Your task to perform on an android device: turn on showing notifications on the lock screen Image 0: 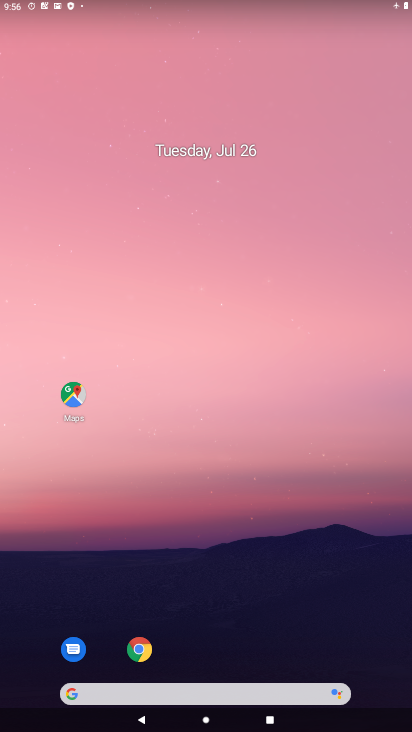
Step 0: drag from (219, 618) to (290, 167)
Your task to perform on an android device: turn on showing notifications on the lock screen Image 1: 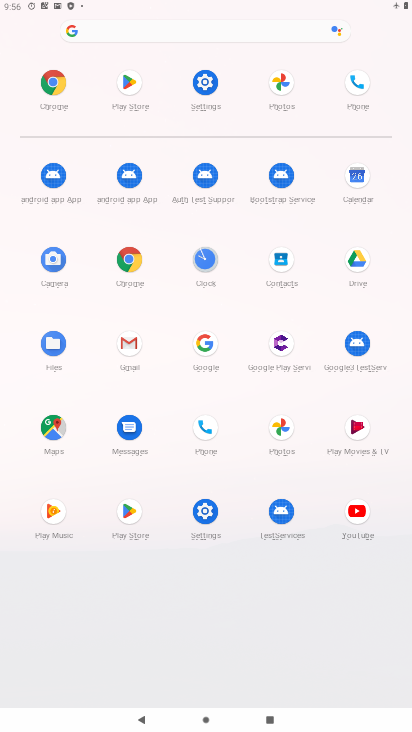
Step 1: click (201, 501)
Your task to perform on an android device: turn on showing notifications on the lock screen Image 2: 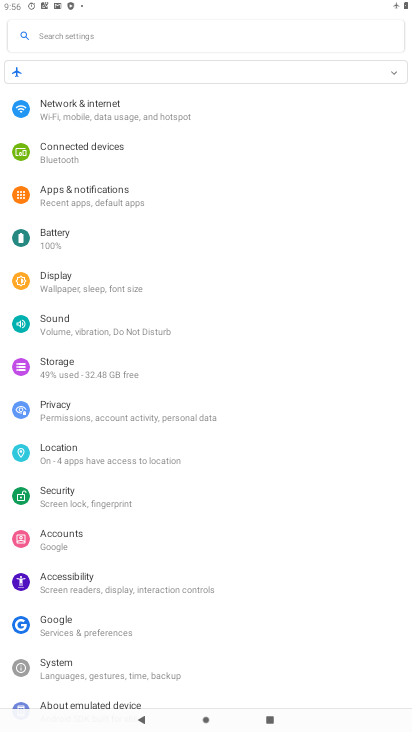
Step 2: drag from (216, 587) to (280, 218)
Your task to perform on an android device: turn on showing notifications on the lock screen Image 3: 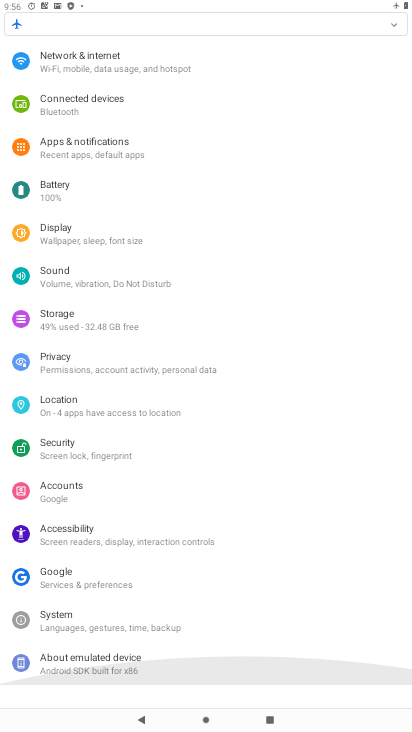
Step 3: drag from (245, 203) to (195, 703)
Your task to perform on an android device: turn on showing notifications on the lock screen Image 4: 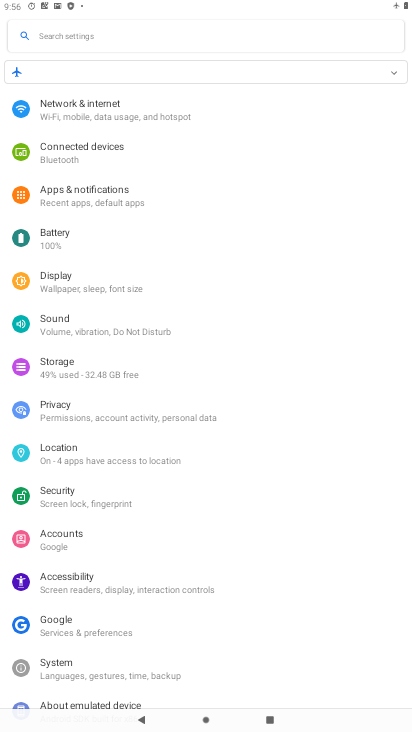
Step 4: click (90, 196)
Your task to perform on an android device: turn on showing notifications on the lock screen Image 5: 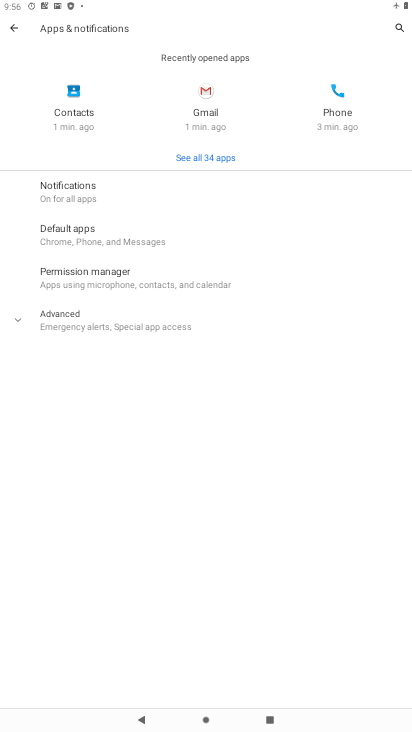
Step 5: click (130, 195)
Your task to perform on an android device: turn on showing notifications on the lock screen Image 6: 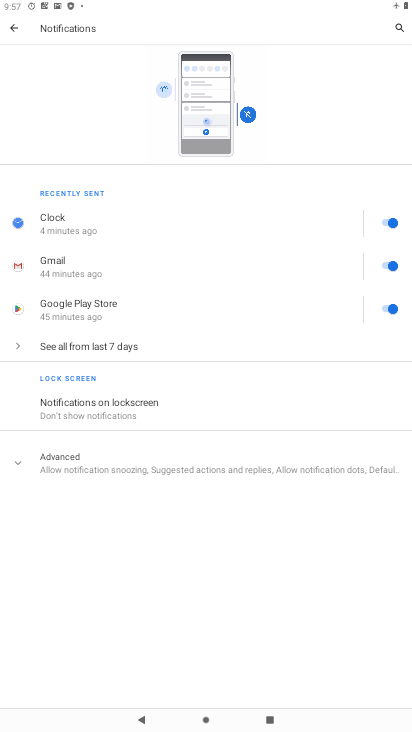
Step 6: click (147, 414)
Your task to perform on an android device: turn on showing notifications on the lock screen Image 7: 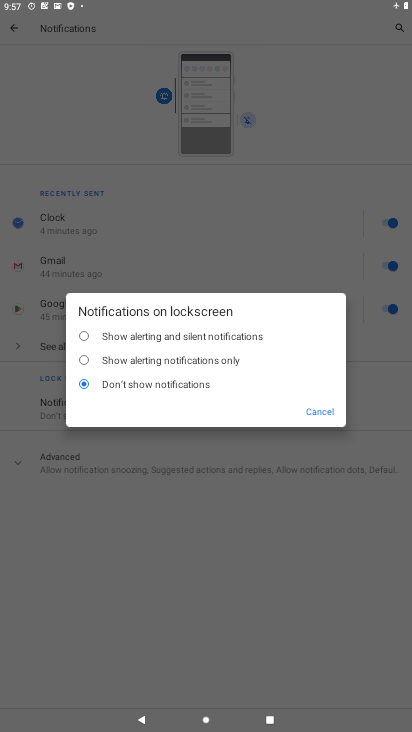
Step 7: click (124, 332)
Your task to perform on an android device: turn on showing notifications on the lock screen Image 8: 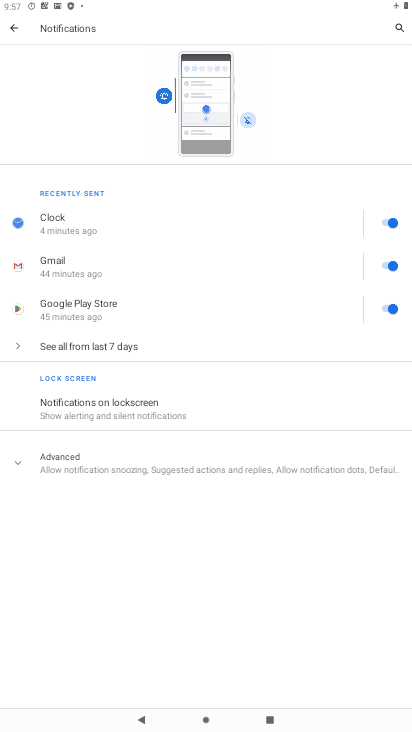
Step 8: task complete